Your task to perform on an android device: Do I have any events today? Image 0: 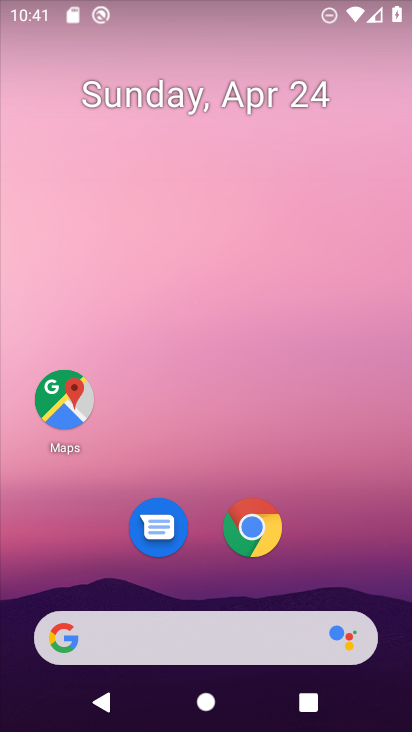
Step 0: drag from (357, 515) to (268, 60)
Your task to perform on an android device: Do I have any events today? Image 1: 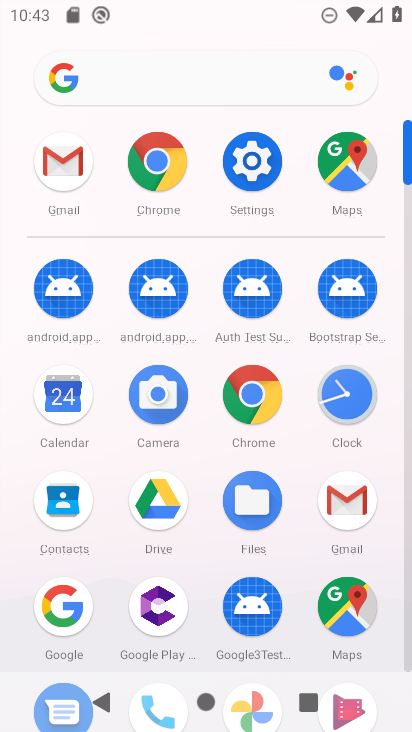
Step 1: click (66, 418)
Your task to perform on an android device: Do I have any events today? Image 2: 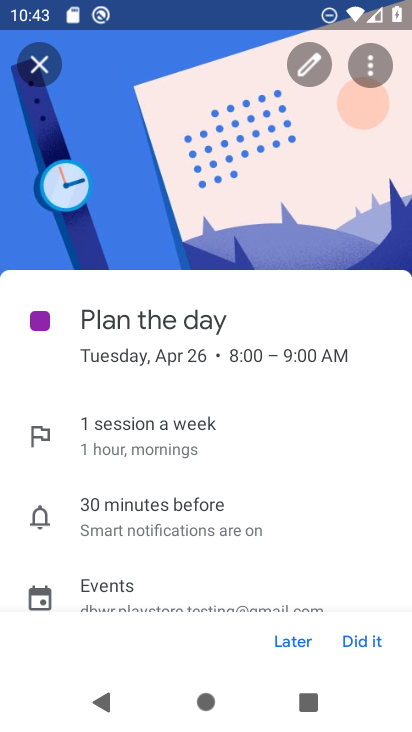
Step 2: press back button
Your task to perform on an android device: Do I have any events today? Image 3: 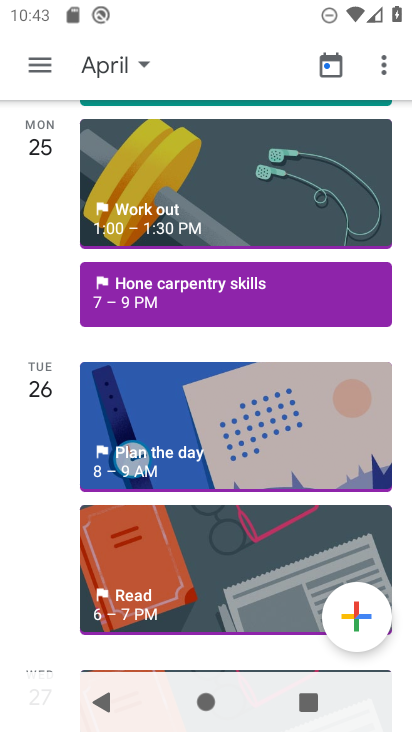
Step 3: click (208, 211)
Your task to perform on an android device: Do I have any events today? Image 4: 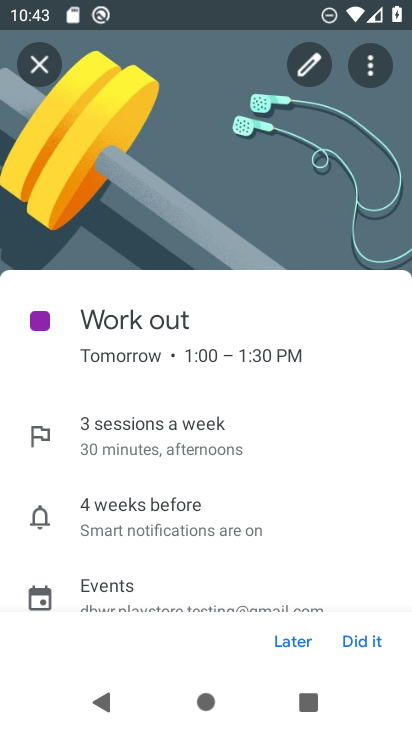
Step 4: task complete